Your task to perform on an android device: Show me popular videos on Youtube Image 0: 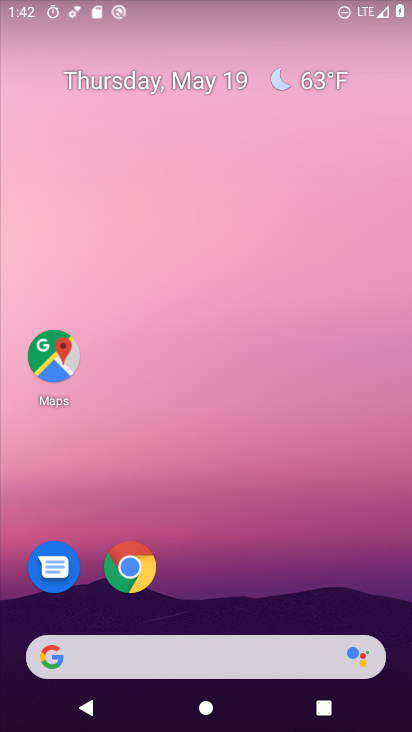
Step 0: press home button
Your task to perform on an android device: Show me popular videos on Youtube Image 1: 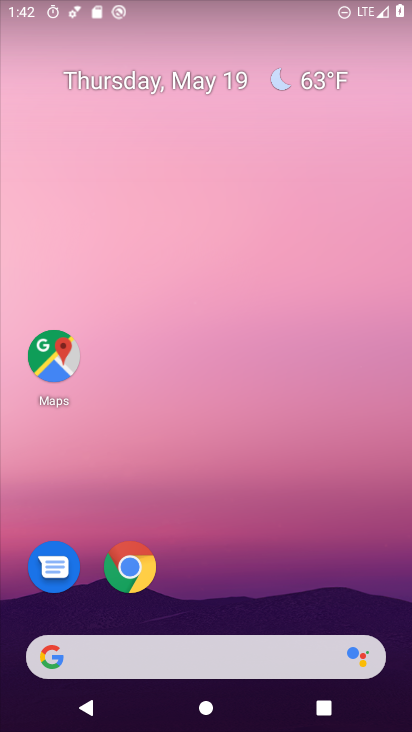
Step 1: drag from (192, 655) to (292, 195)
Your task to perform on an android device: Show me popular videos on Youtube Image 2: 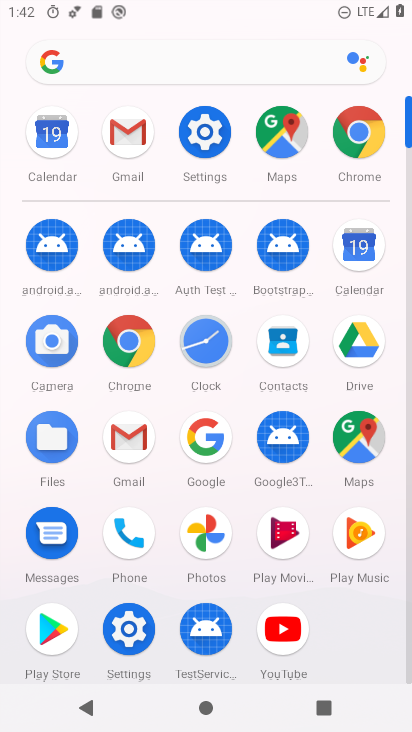
Step 2: click (273, 634)
Your task to perform on an android device: Show me popular videos on Youtube Image 3: 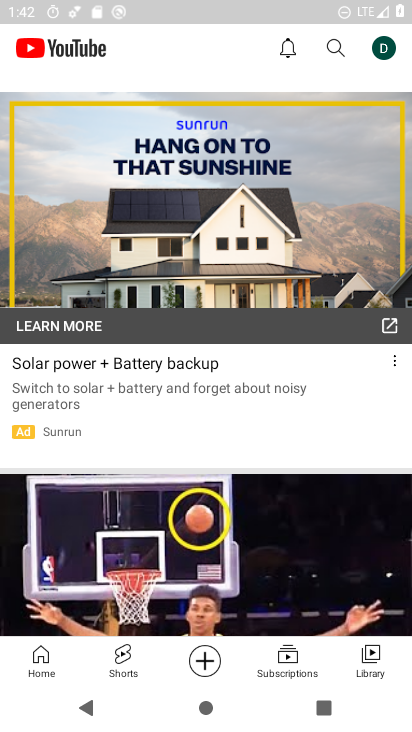
Step 3: task complete